Your task to perform on an android device: Open the web browser Image 0: 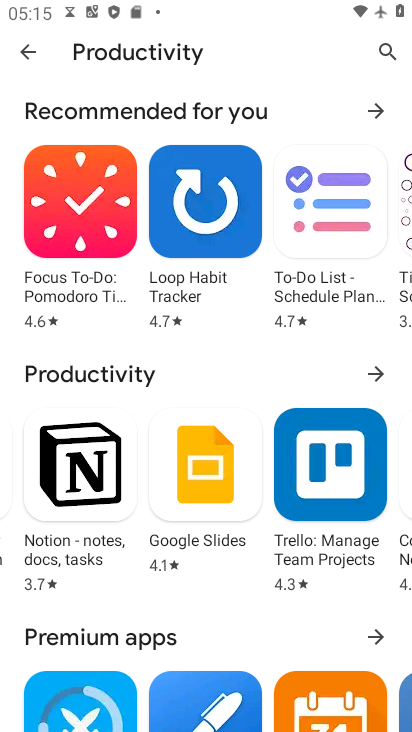
Step 0: press back button
Your task to perform on an android device: Open the web browser Image 1: 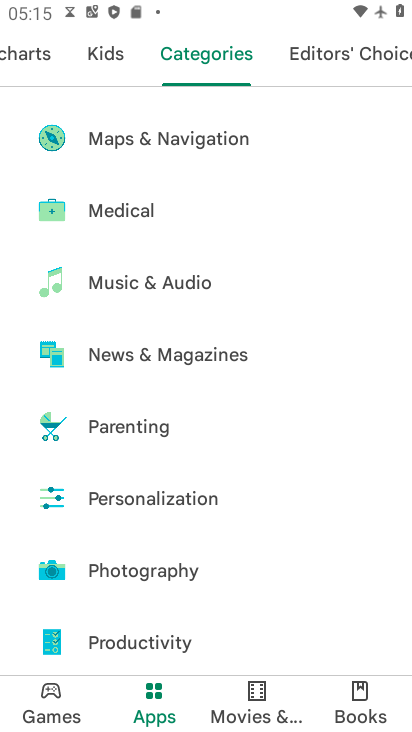
Step 1: press back button
Your task to perform on an android device: Open the web browser Image 2: 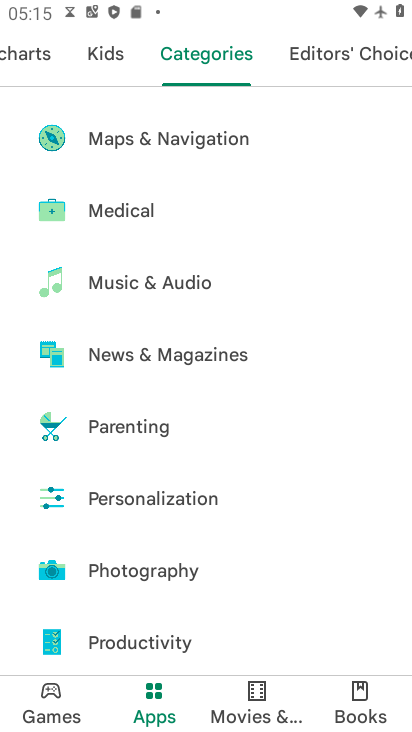
Step 2: press home button
Your task to perform on an android device: Open the web browser Image 3: 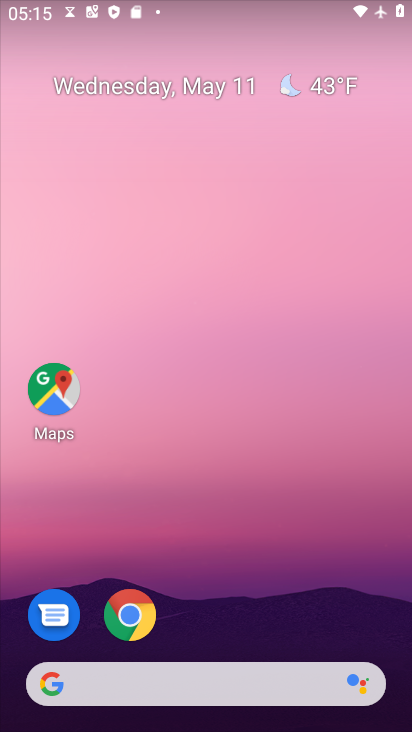
Step 3: drag from (276, 565) to (264, 34)
Your task to perform on an android device: Open the web browser Image 4: 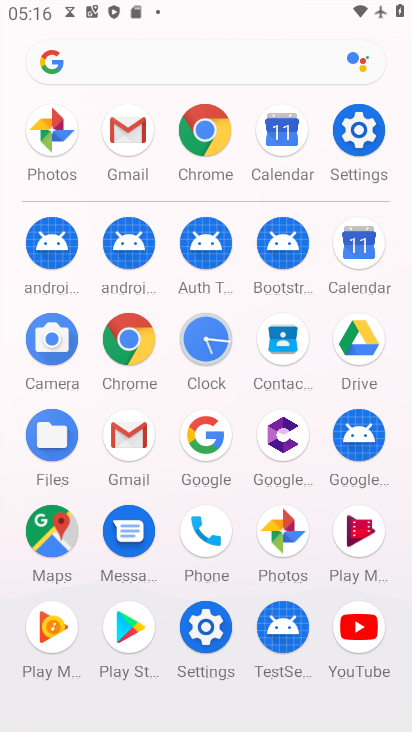
Step 4: click (203, 127)
Your task to perform on an android device: Open the web browser Image 5: 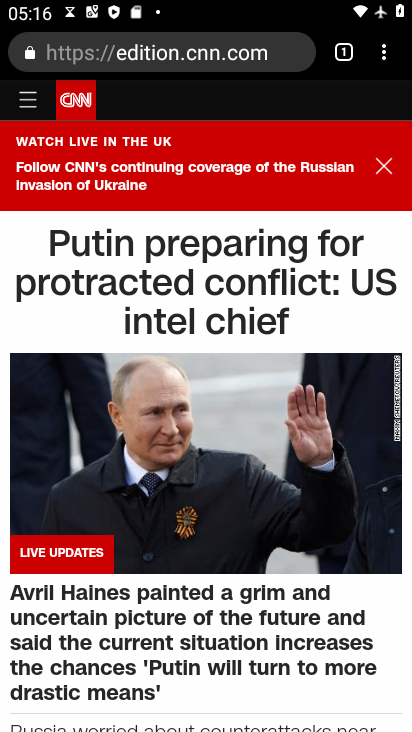
Step 5: click (213, 38)
Your task to perform on an android device: Open the web browser Image 6: 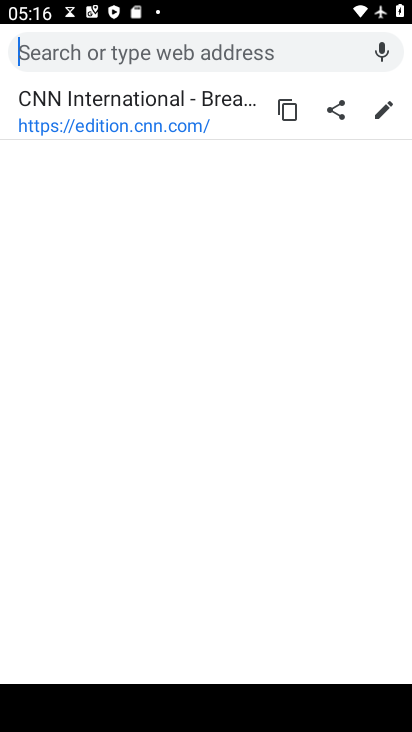
Step 6: click (269, 327)
Your task to perform on an android device: Open the web browser Image 7: 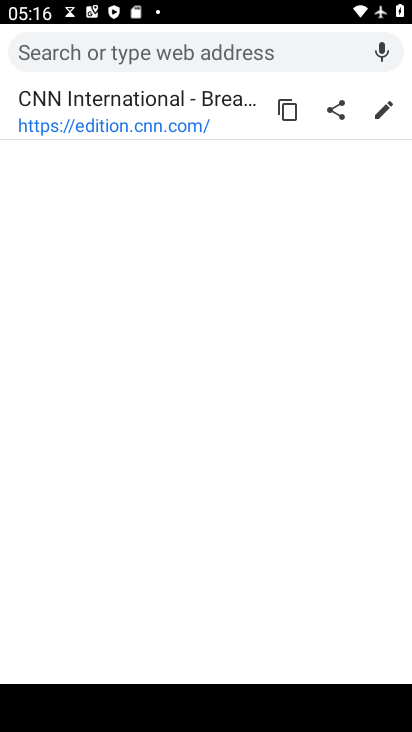
Step 7: task complete